Your task to perform on an android device: set default search engine in the chrome app Image 0: 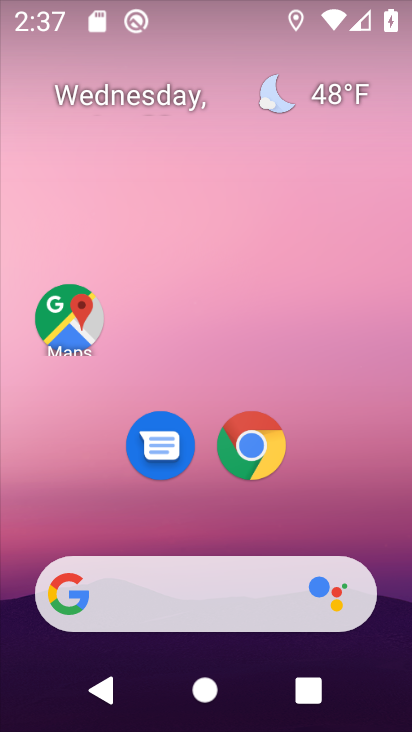
Step 0: click (247, 449)
Your task to perform on an android device: set default search engine in the chrome app Image 1: 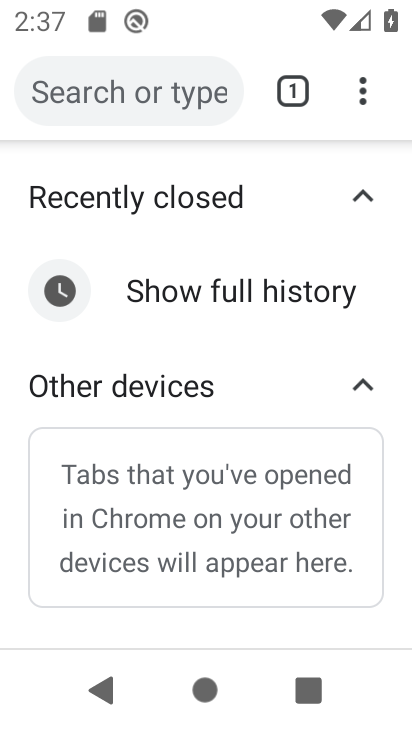
Step 1: click (363, 94)
Your task to perform on an android device: set default search engine in the chrome app Image 2: 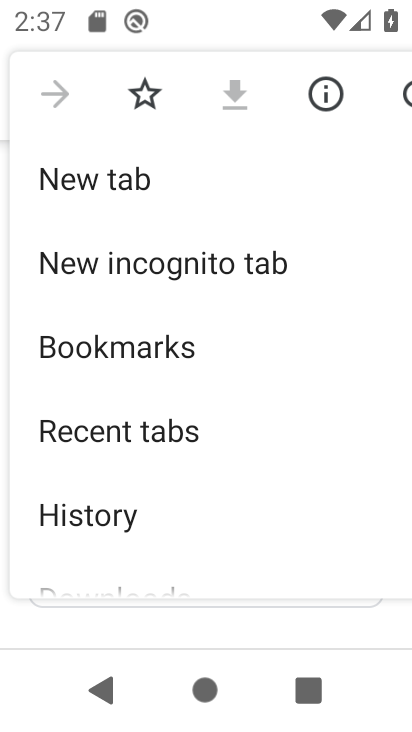
Step 2: drag from (306, 482) to (285, 181)
Your task to perform on an android device: set default search engine in the chrome app Image 3: 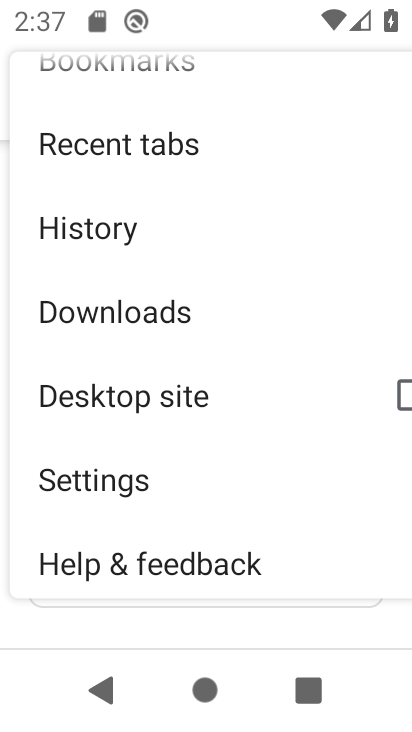
Step 3: drag from (260, 340) to (261, 117)
Your task to perform on an android device: set default search engine in the chrome app Image 4: 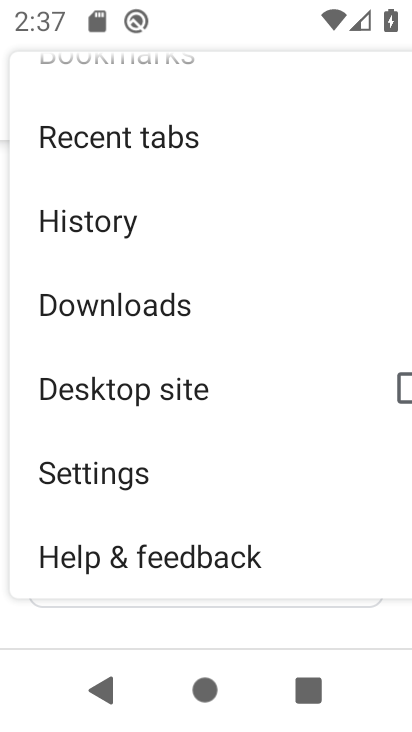
Step 4: click (81, 482)
Your task to perform on an android device: set default search engine in the chrome app Image 5: 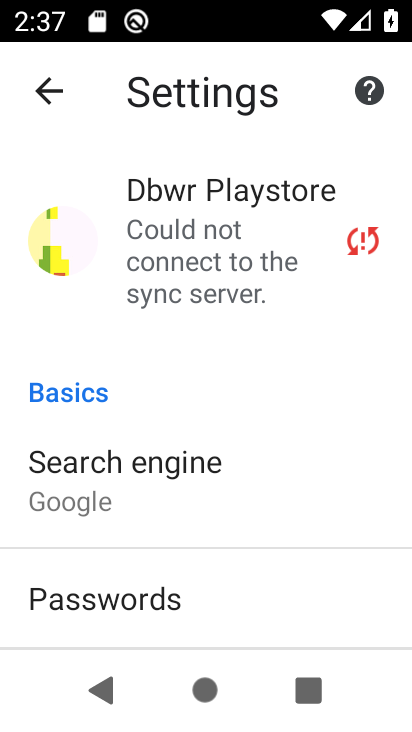
Step 5: click (55, 479)
Your task to perform on an android device: set default search engine in the chrome app Image 6: 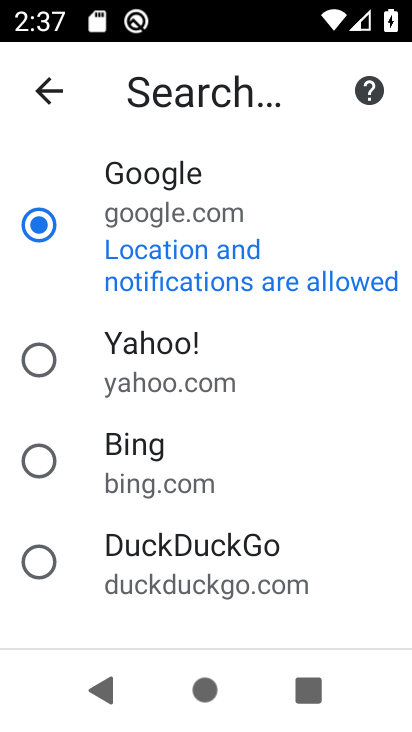
Step 6: click (40, 363)
Your task to perform on an android device: set default search engine in the chrome app Image 7: 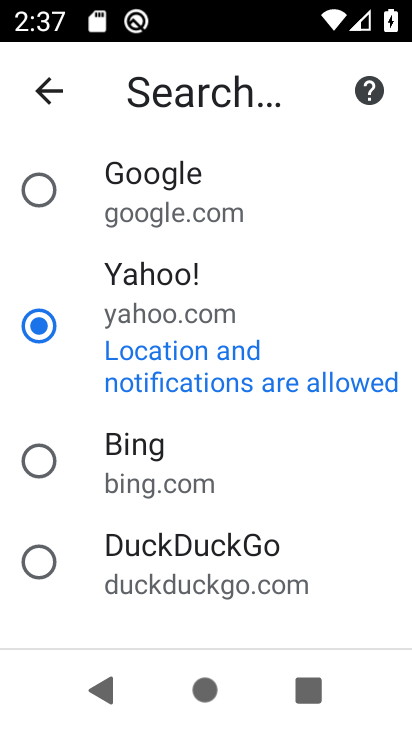
Step 7: task complete